Your task to perform on an android device: toggle notifications settings in the gmail app Image 0: 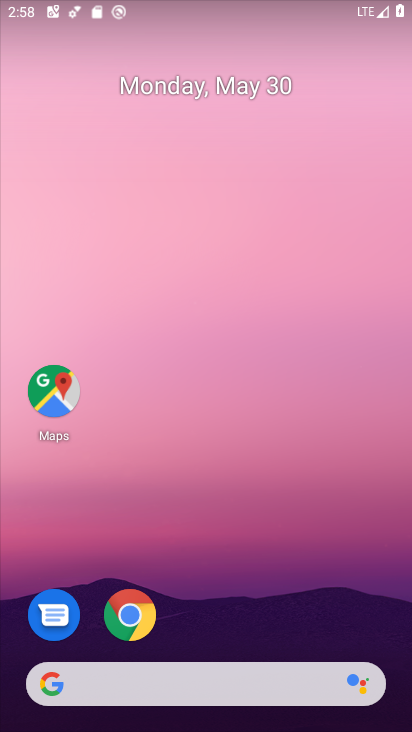
Step 0: drag from (268, 595) to (267, 41)
Your task to perform on an android device: toggle notifications settings in the gmail app Image 1: 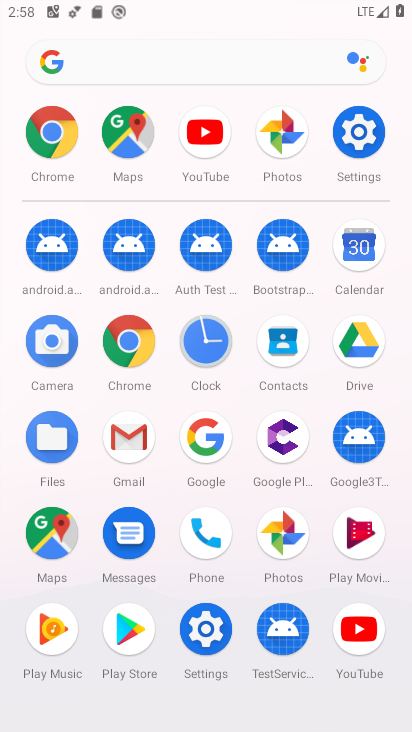
Step 1: click (142, 432)
Your task to perform on an android device: toggle notifications settings in the gmail app Image 2: 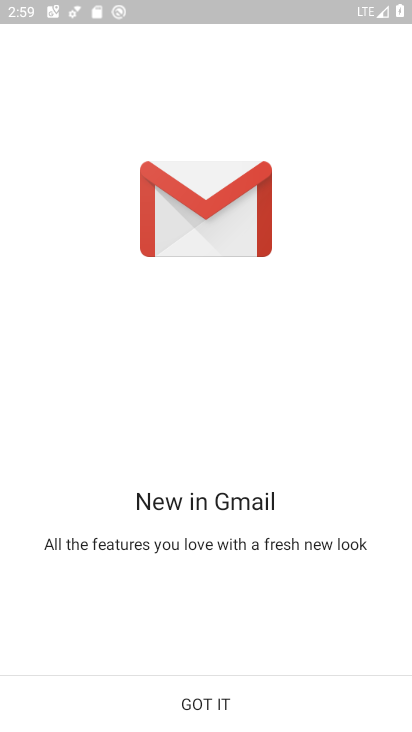
Step 2: click (203, 696)
Your task to perform on an android device: toggle notifications settings in the gmail app Image 3: 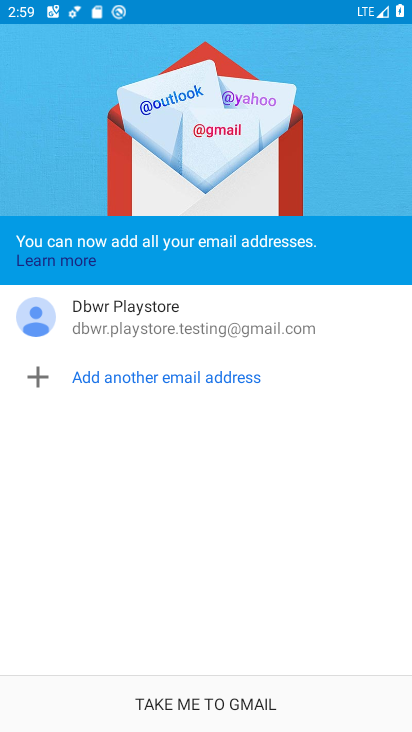
Step 3: click (203, 694)
Your task to perform on an android device: toggle notifications settings in the gmail app Image 4: 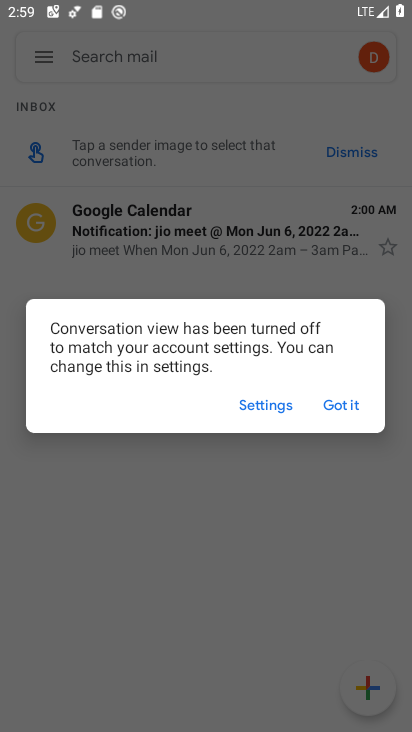
Step 4: click (348, 400)
Your task to perform on an android device: toggle notifications settings in the gmail app Image 5: 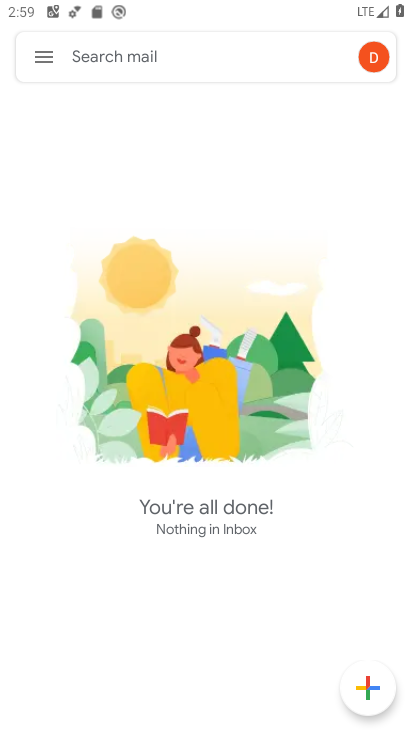
Step 5: click (48, 53)
Your task to perform on an android device: toggle notifications settings in the gmail app Image 6: 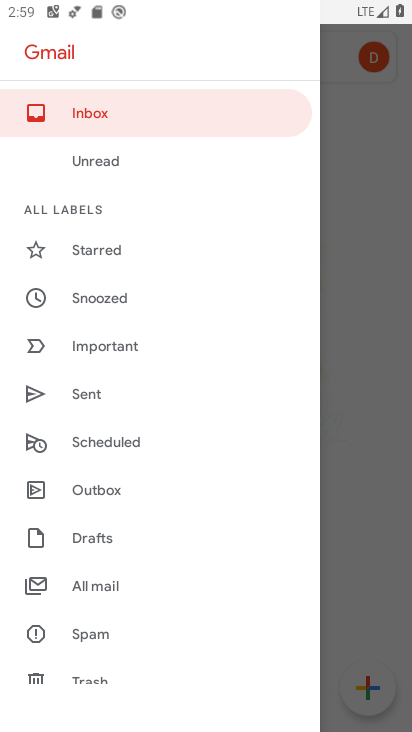
Step 6: drag from (112, 559) to (138, 230)
Your task to perform on an android device: toggle notifications settings in the gmail app Image 7: 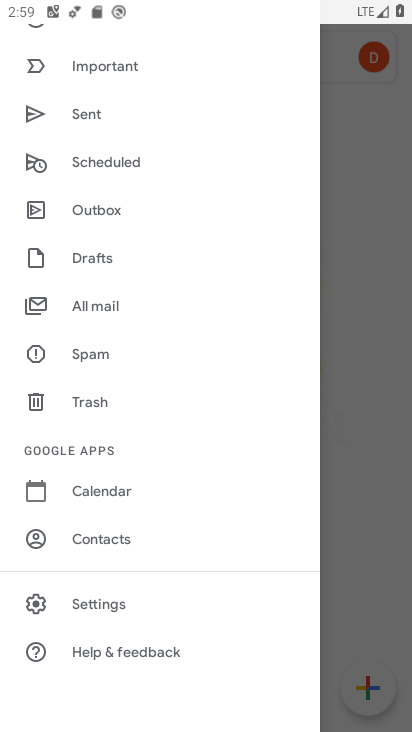
Step 7: click (108, 606)
Your task to perform on an android device: toggle notifications settings in the gmail app Image 8: 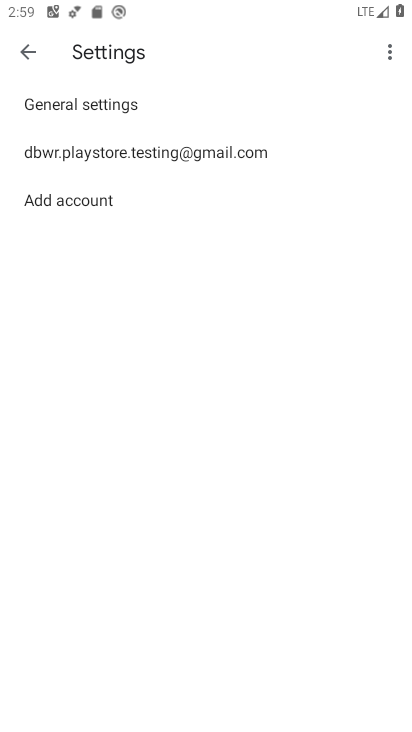
Step 8: click (224, 153)
Your task to perform on an android device: toggle notifications settings in the gmail app Image 9: 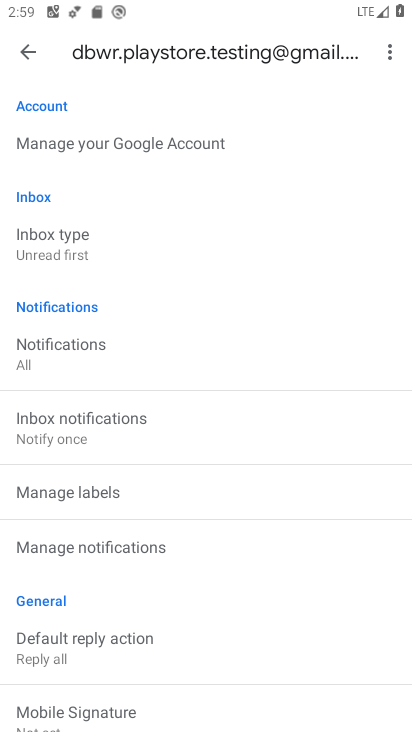
Step 9: click (162, 540)
Your task to perform on an android device: toggle notifications settings in the gmail app Image 10: 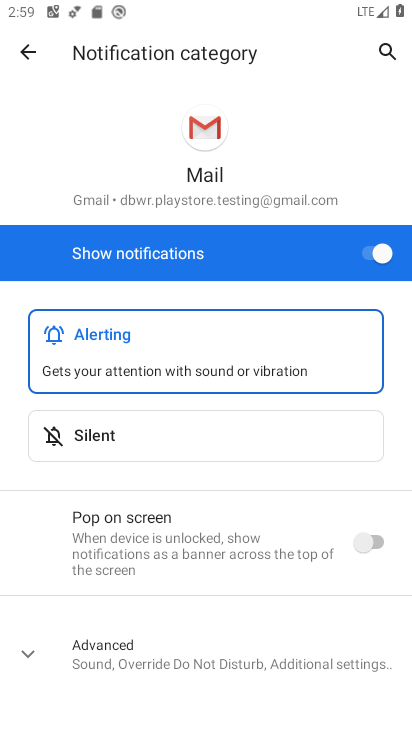
Step 10: click (376, 247)
Your task to perform on an android device: toggle notifications settings in the gmail app Image 11: 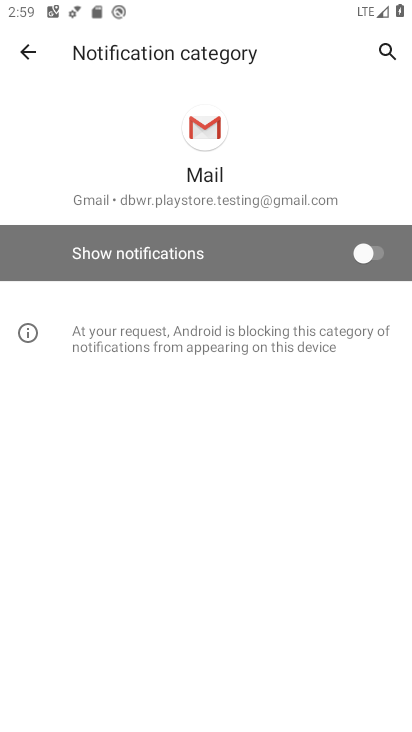
Step 11: task complete